Your task to perform on an android device: Open notification settings Image 0: 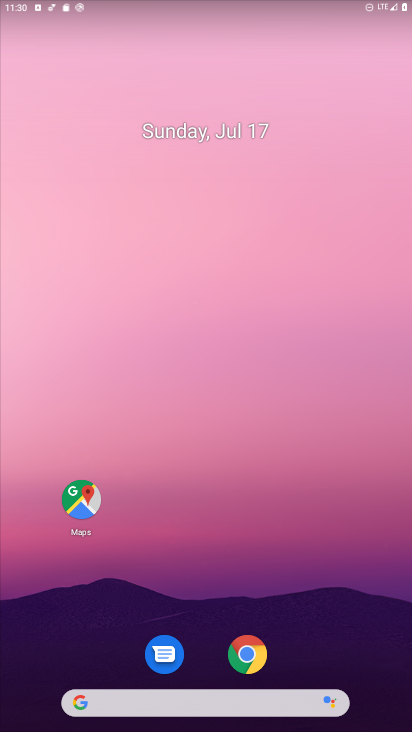
Step 0: drag from (207, 640) to (255, 355)
Your task to perform on an android device: Open notification settings Image 1: 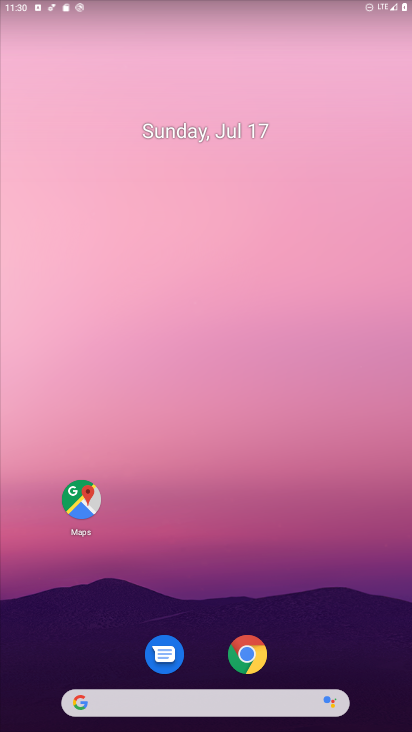
Step 1: drag from (206, 620) to (242, 80)
Your task to perform on an android device: Open notification settings Image 2: 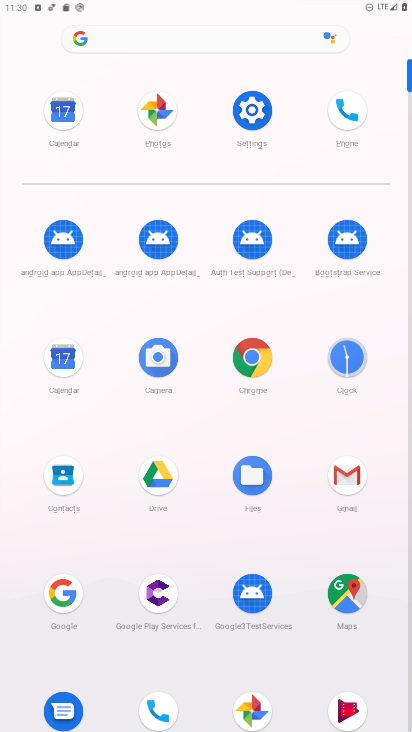
Step 2: click (252, 101)
Your task to perform on an android device: Open notification settings Image 3: 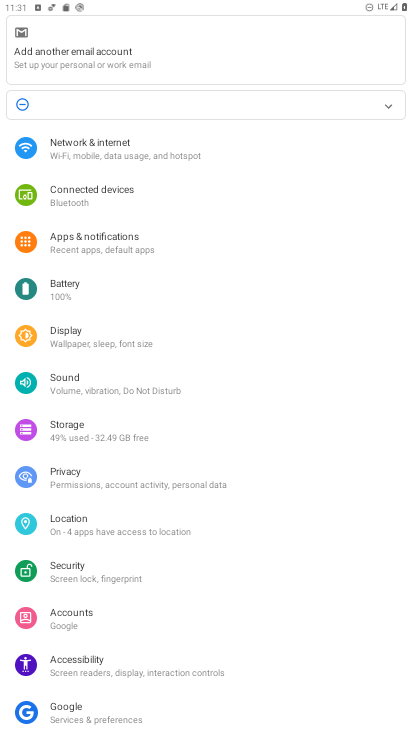
Step 3: click (149, 242)
Your task to perform on an android device: Open notification settings Image 4: 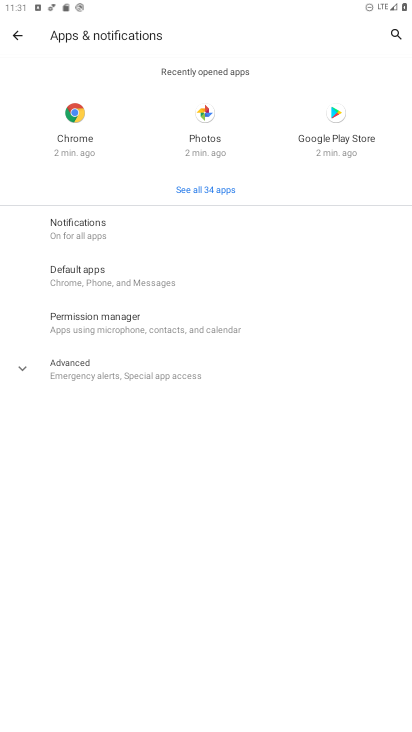
Step 4: click (94, 232)
Your task to perform on an android device: Open notification settings Image 5: 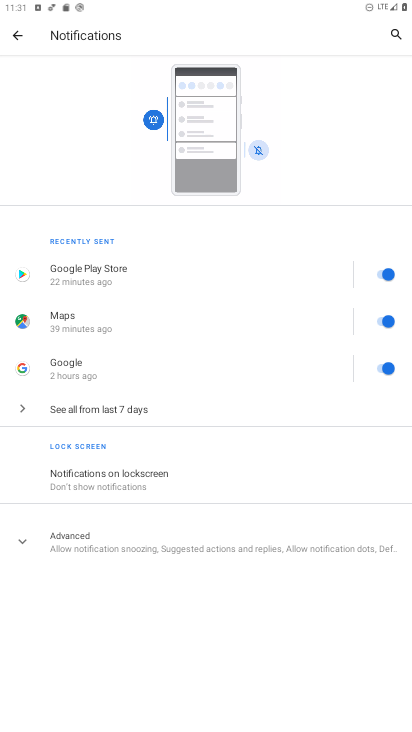
Step 5: task complete